Your task to perform on an android device: Show me popular videos on Youtube Image 0: 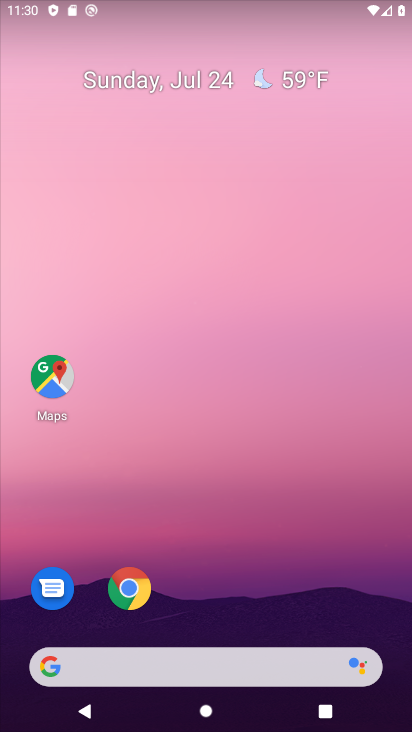
Step 0: drag from (360, 594) to (159, 77)
Your task to perform on an android device: Show me popular videos on Youtube Image 1: 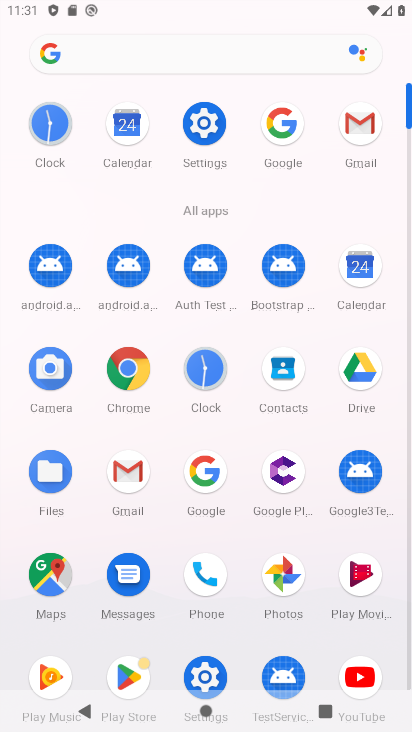
Step 1: click (368, 673)
Your task to perform on an android device: Show me popular videos on Youtube Image 2: 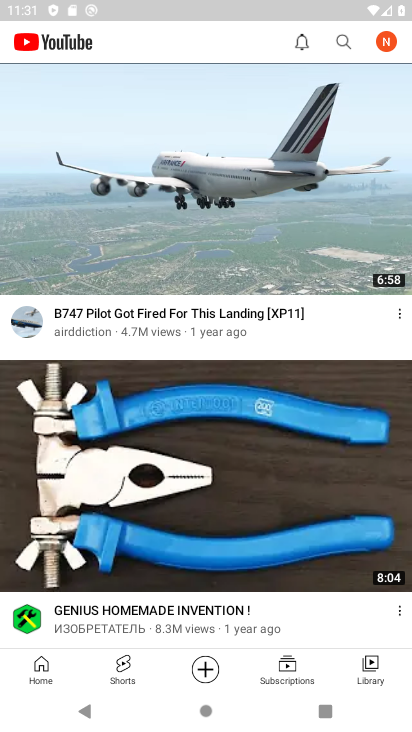
Step 2: task complete